Your task to perform on an android device: turn off airplane mode Image 0: 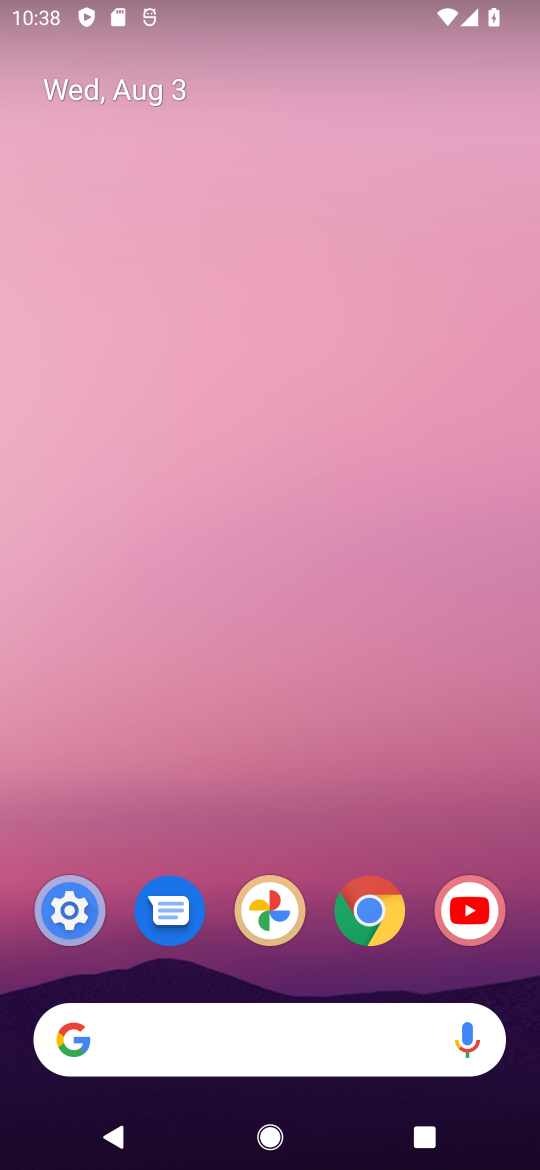
Step 0: press home button
Your task to perform on an android device: turn off airplane mode Image 1: 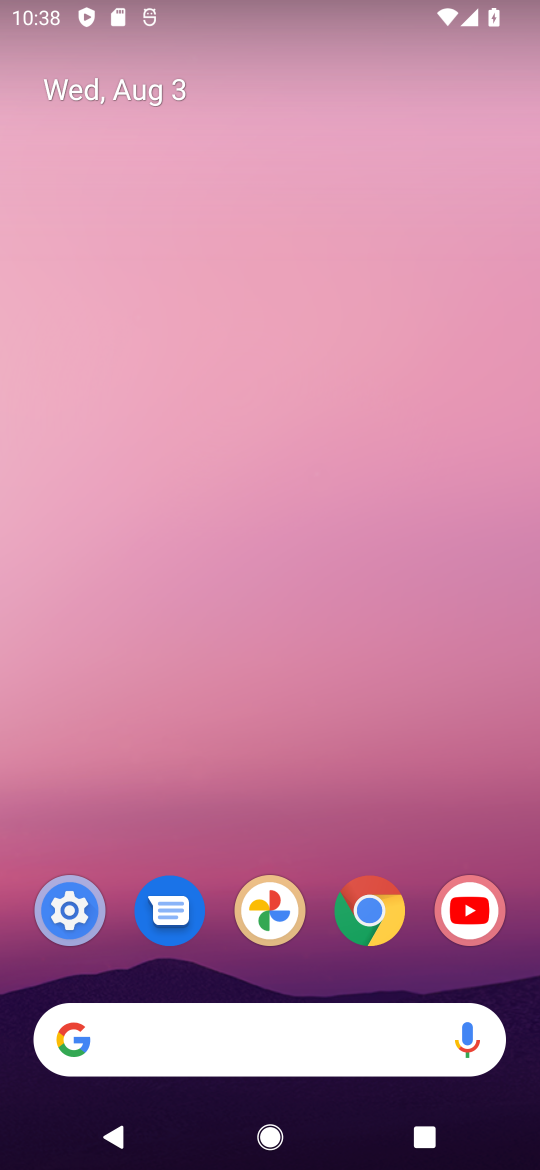
Step 1: task complete